Your task to perform on an android device: Turn off the flashlight Image 0: 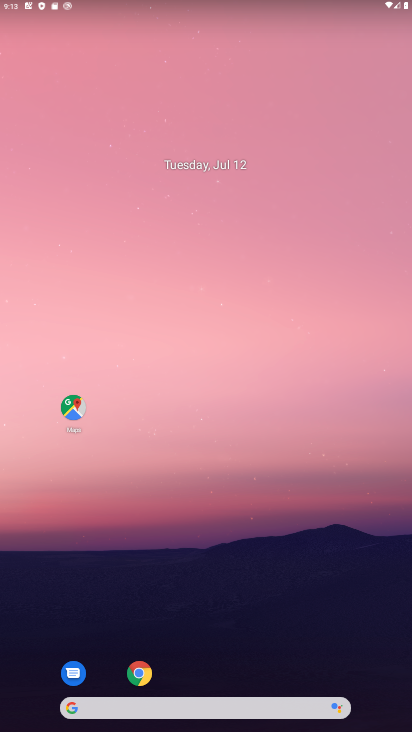
Step 0: drag from (168, 510) to (129, 194)
Your task to perform on an android device: Turn off the flashlight Image 1: 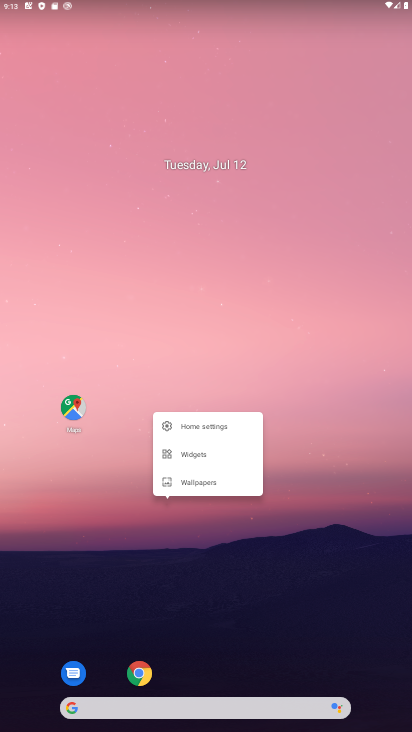
Step 1: drag from (208, 616) to (188, 291)
Your task to perform on an android device: Turn off the flashlight Image 2: 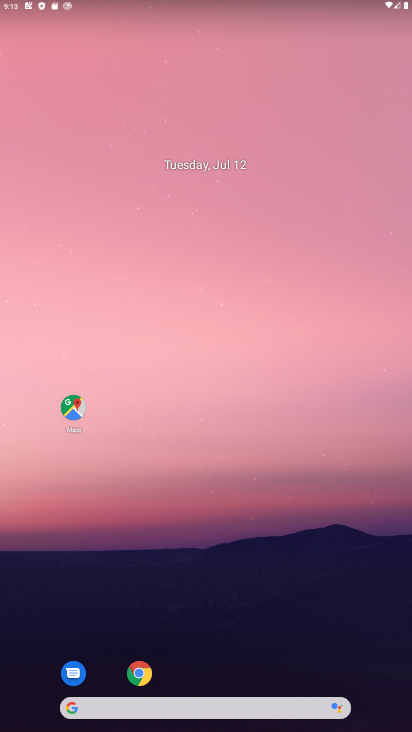
Step 2: drag from (188, 217) to (174, 43)
Your task to perform on an android device: Turn off the flashlight Image 3: 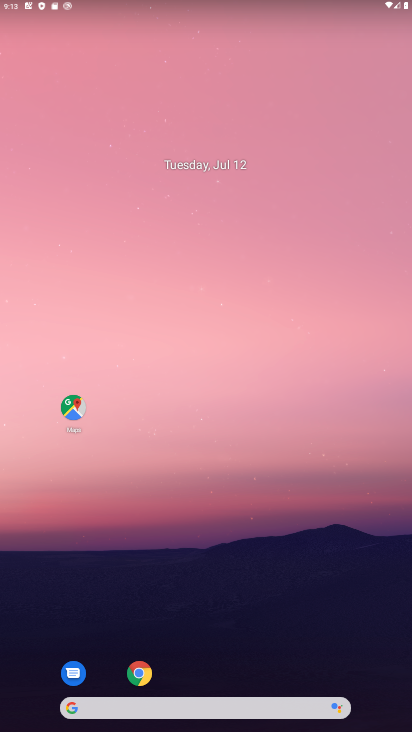
Step 3: drag from (229, 589) to (218, 313)
Your task to perform on an android device: Turn off the flashlight Image 4: 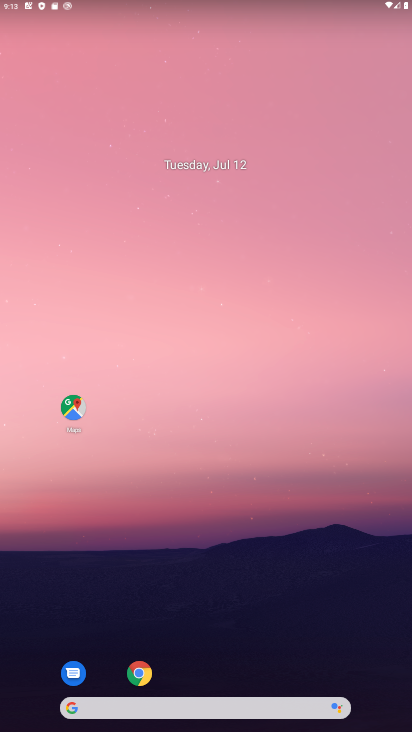
Step 4: drag from (245, 502) to (224, 66)
Your task to perform on an android device: Turn off the flashlight Image 5: 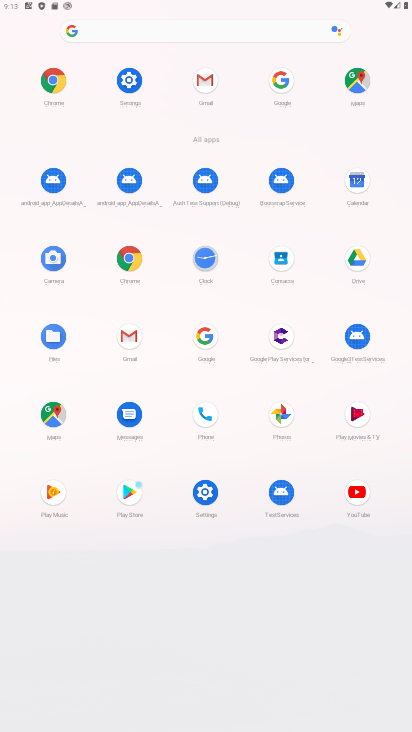
Step 5: click (127, 82)
Your task to perform on an android device: Turn off the flashlight Image 6: 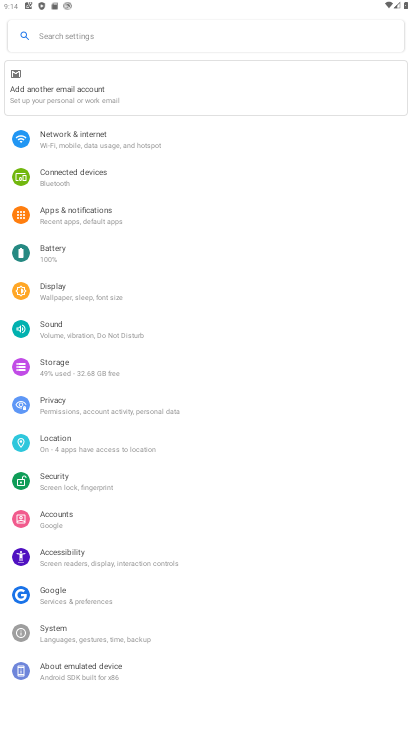
Step 6: task complete